Your task to perform on an android device: Go to settings Image 0: 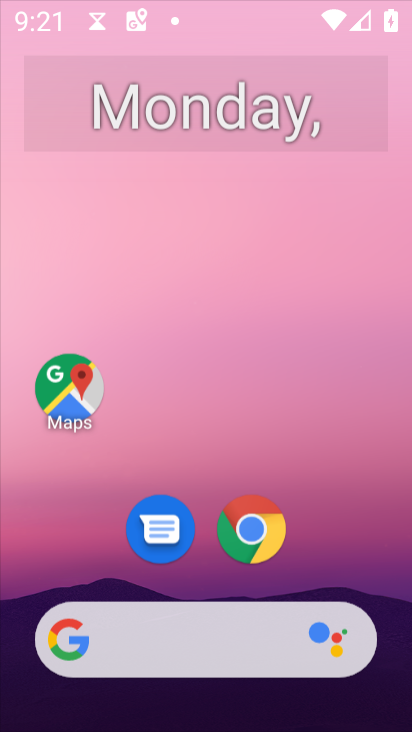
Step 0: click (237, 156)
Your task to perform on an android device: Go to settings Image 1: 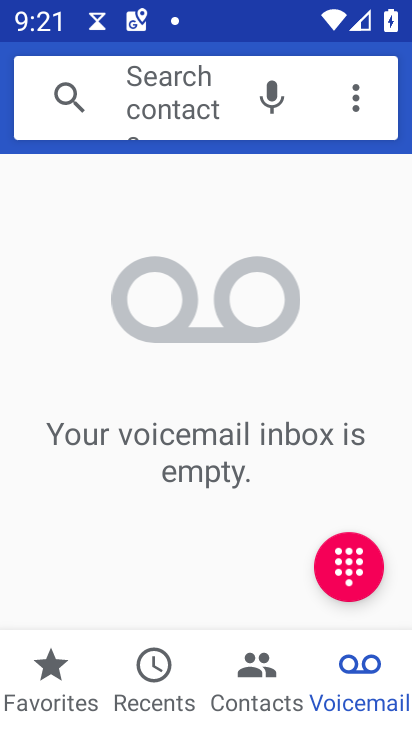
Step 1: press back button
Your task to perform on an android device: Go to settings Image 2: 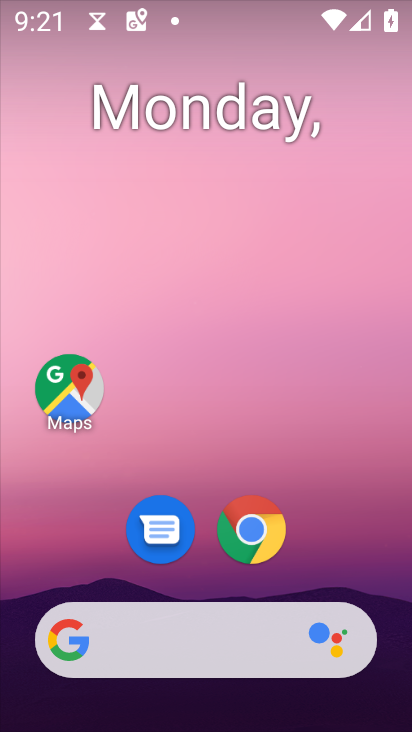
Step 2: drag from (187, 632) to (150, 121)
Your task to perform on an android device: Go to settings Image 3: 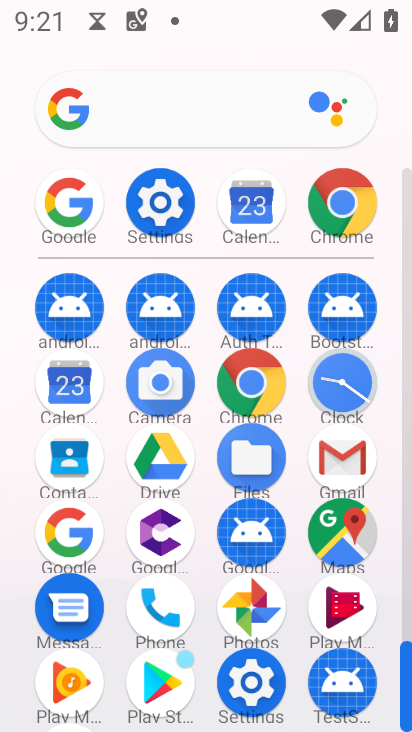
Step 3: click (152, 233)
Your task to perform on an android device: Go to settings Image 4: 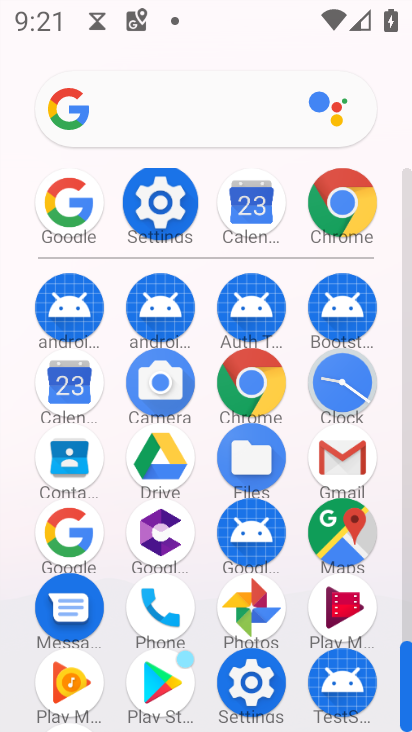
Step 4: click (156, 225)
Your task to perform on an android device: Go to settings Image 5: 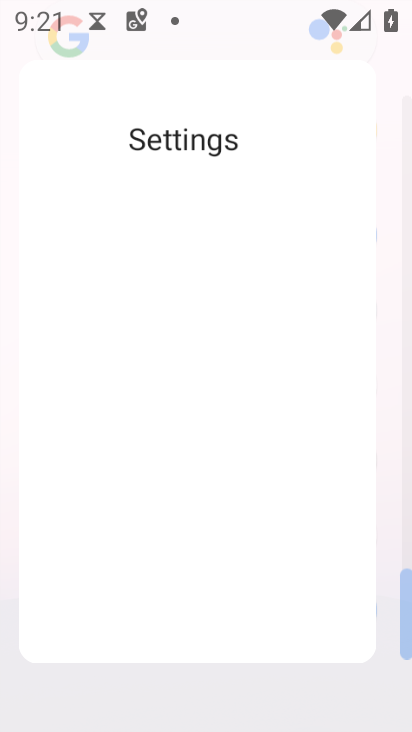
Step 5: click (158, 224)
Your task to perform on an android device: Go to settings Image 6: 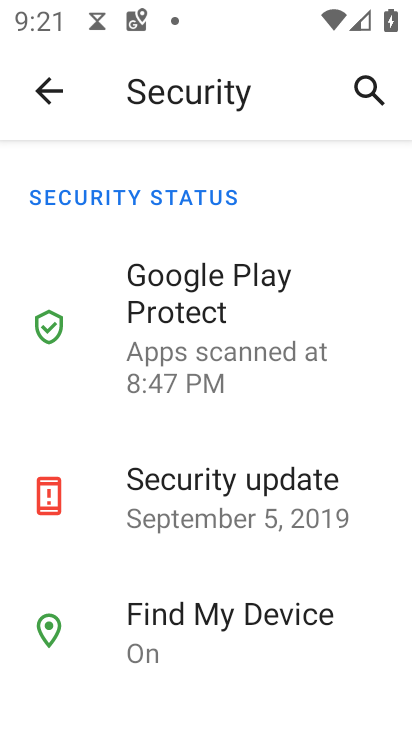
Step 6: click (38, 86)
Your task to perform on an android device: Go to settings Image 7: 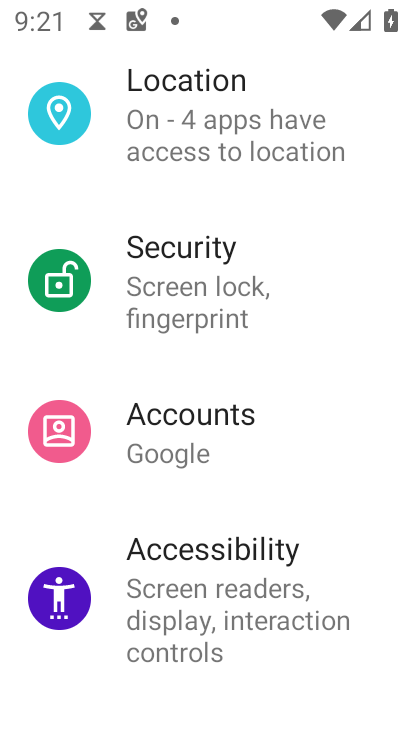
Step 7: task complete